Your task to perform on an android device: Go to Reddit.com Image 0: 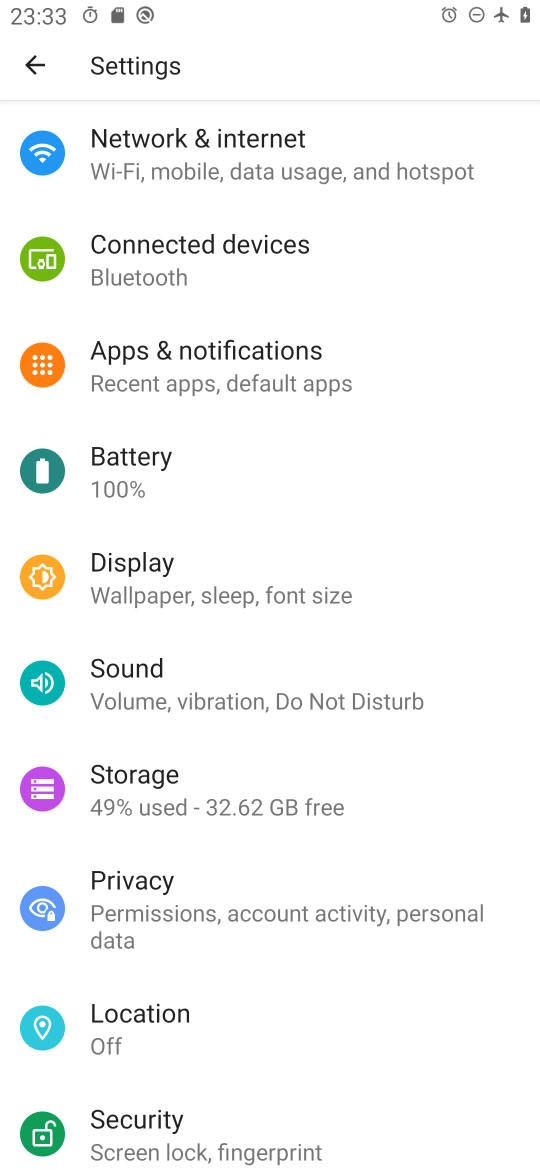
Step 0: press home button
Your task to perform on an android device: Go to Reddit.com Image 1: 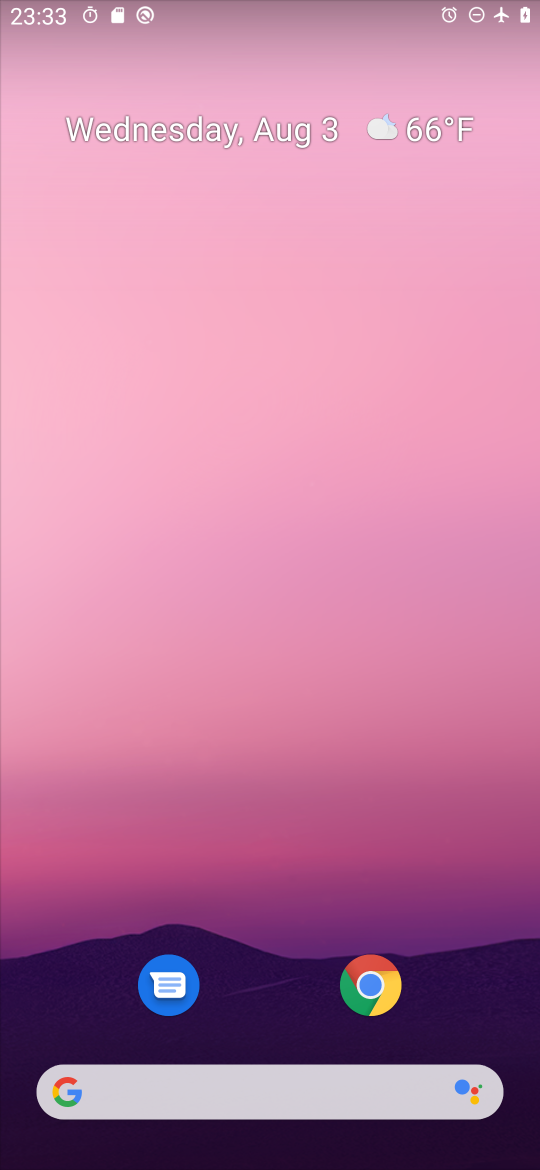
Step 1: click (314, 978)
Your task to perform on an android device: Go to Reddit.com Image 2: 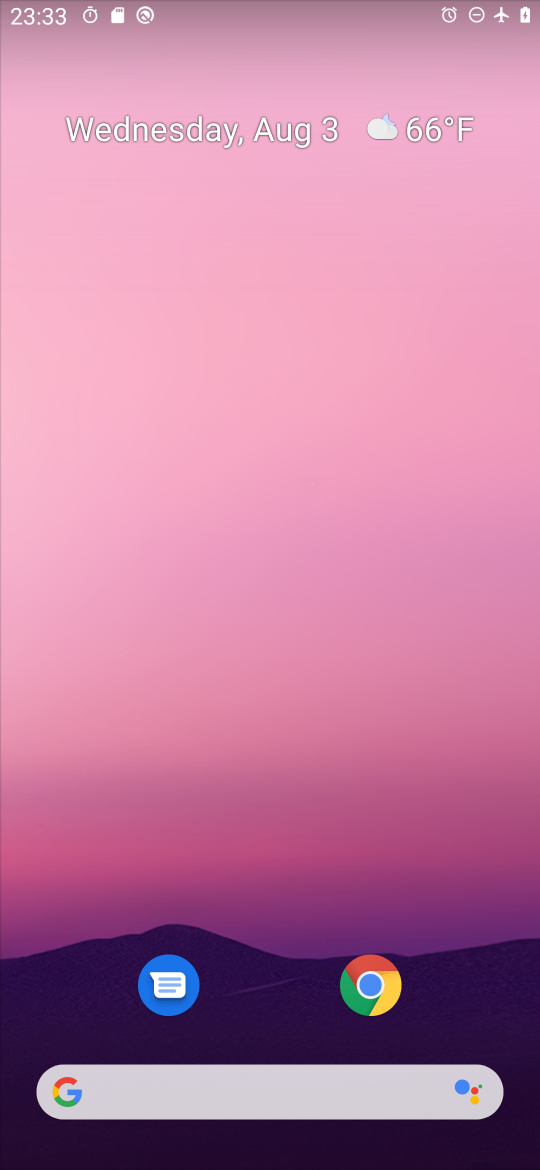
Step 2: click (346, 986)
Your task to perform on an android device: Go to Reddit.com Image 3: 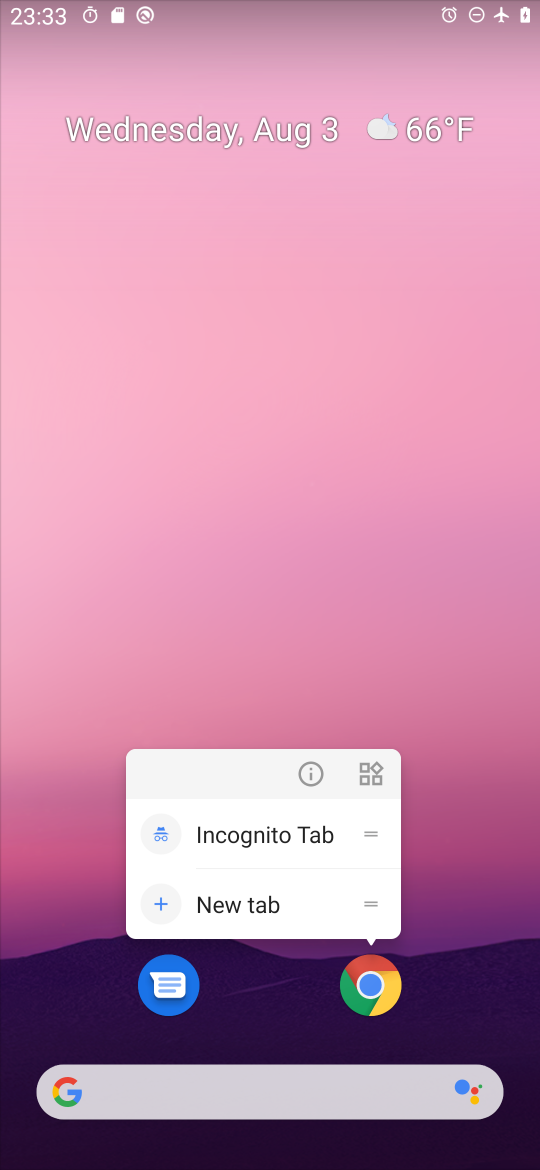
Step 3: click (346, 986)
Your task to perform on an android device: Go to Reddit.com Image 4: 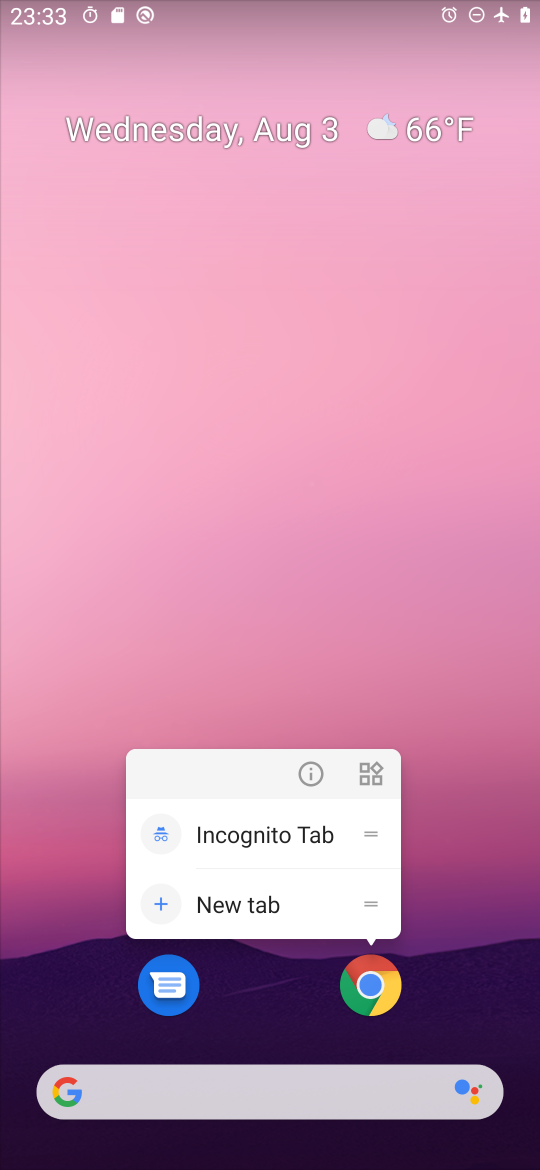
Step 4: click (346, 986)
Your task to perform on an android device: Go to Reddit.com Image 5: 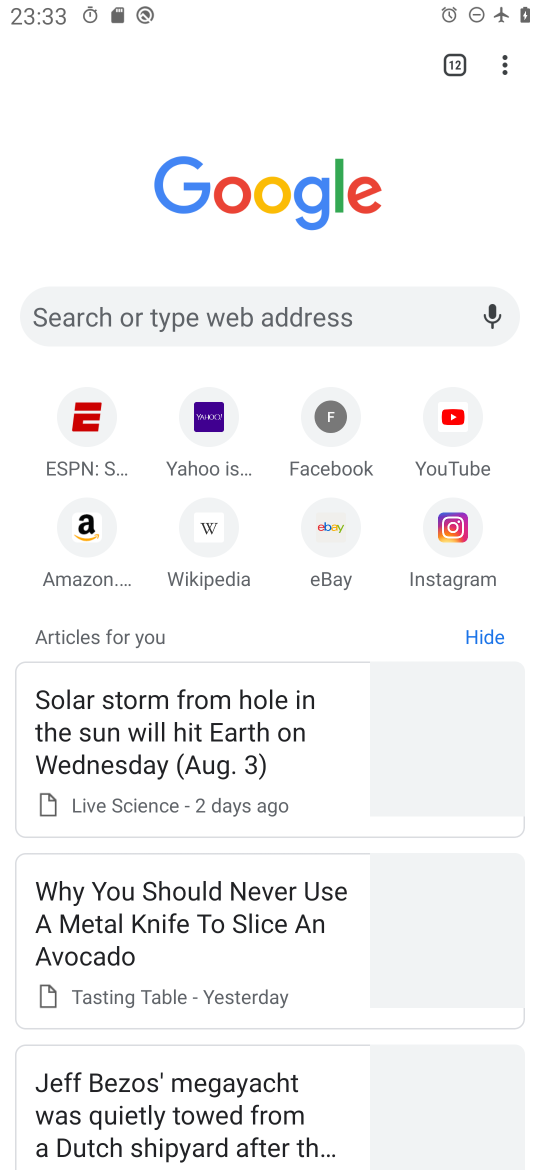
Step 5: click (231, 319)
Your task to perform on an android device: Go to Reddit.com Image 6: 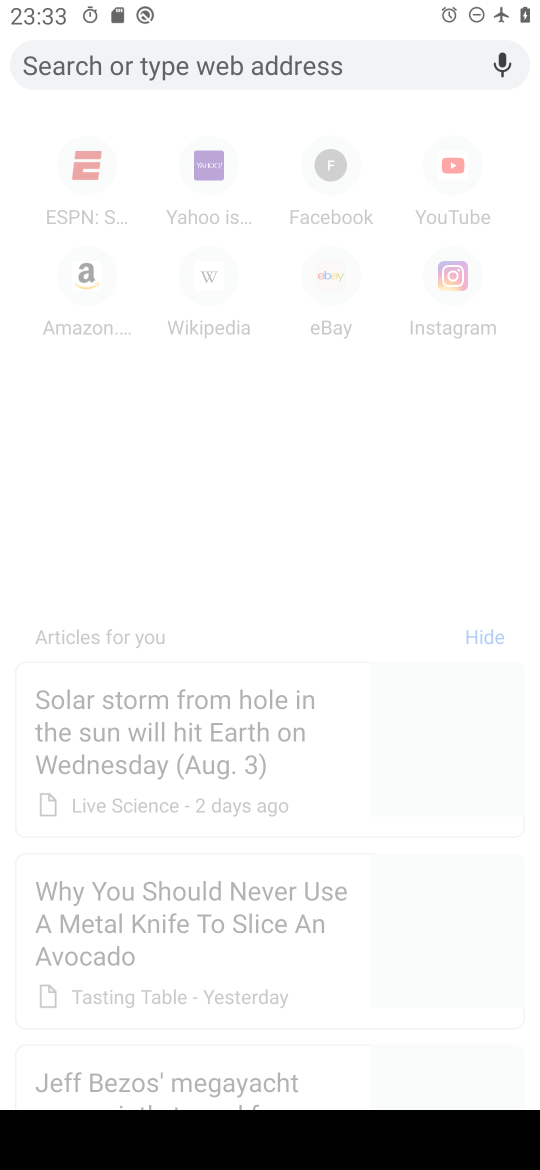
Step 6: type "Reddit.com"
Your task to perform on an android device: Go to Reddit.com Image 7: 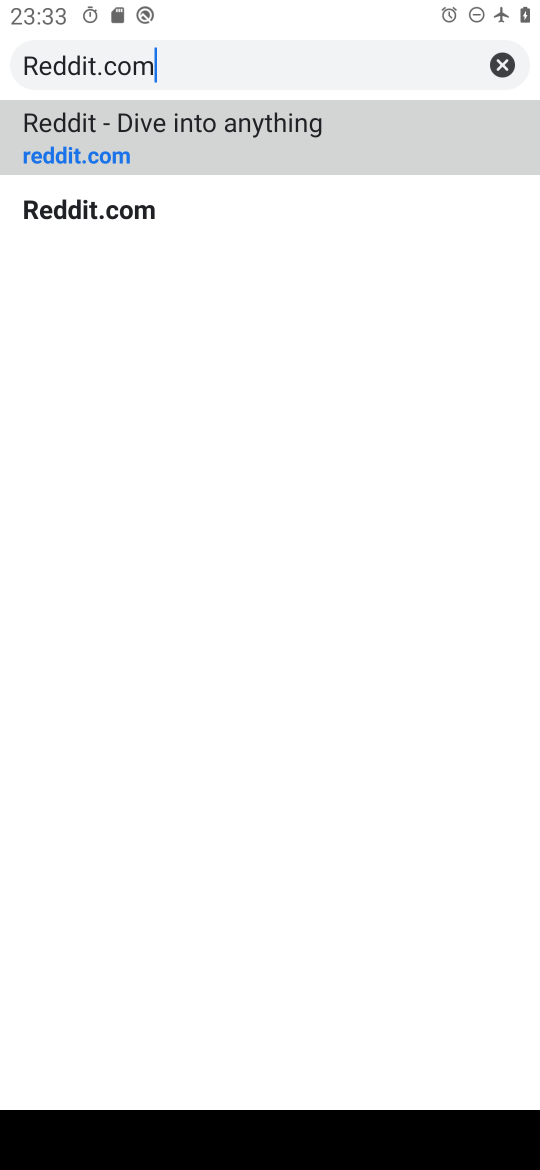
Step 7: type ""
Your task to perform on an android device: Go to Reddit.com Image 8: 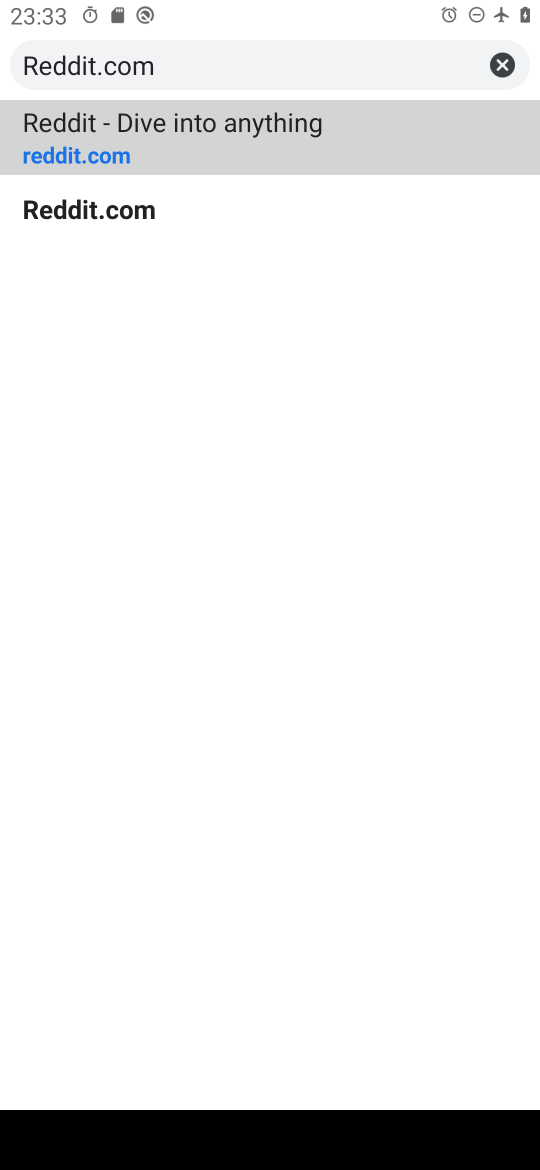
Step 8: click (232, 145)
Your task to perform on an android device: Go to Reddit.com Image 9: 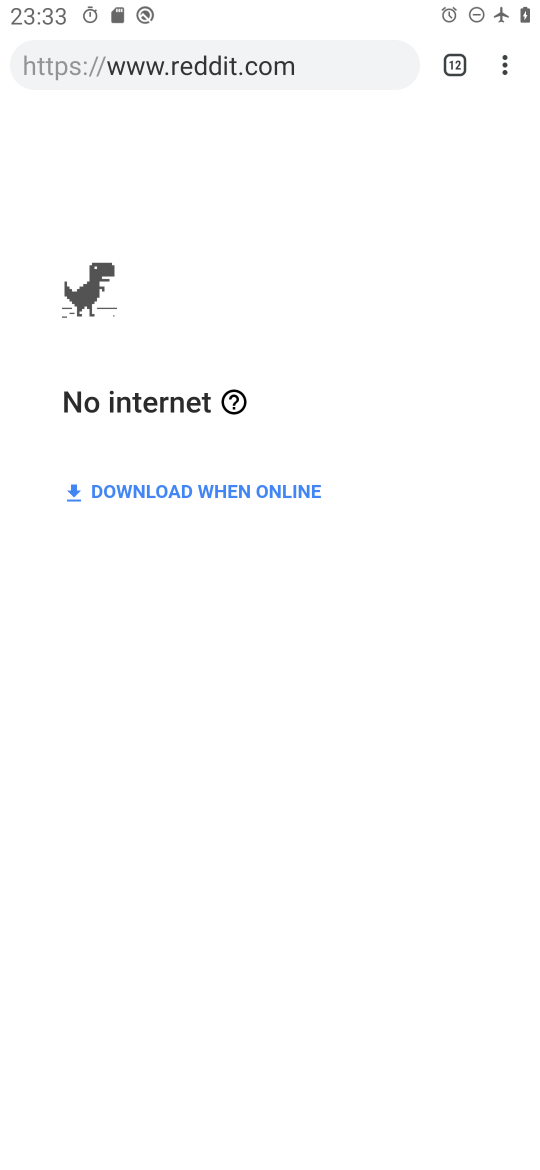
Step 9: task complete